Your task to perform on an android device: find which apps use the phone's location Image 0: 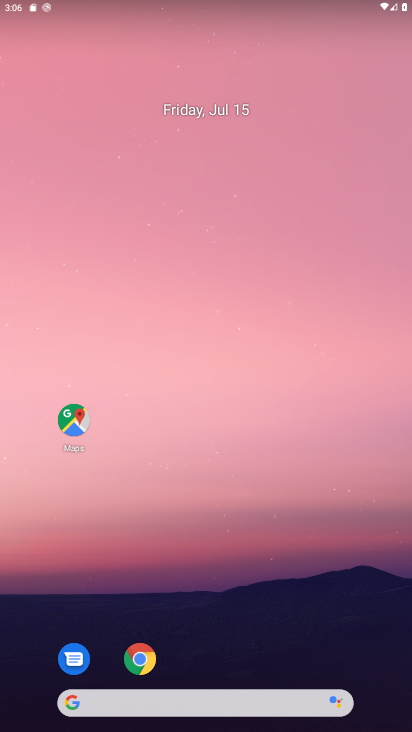
Step 0: drag from (345, 589) to (58, 141)
Your task to perform on an android device: find which apps use the phone's location Image 1: 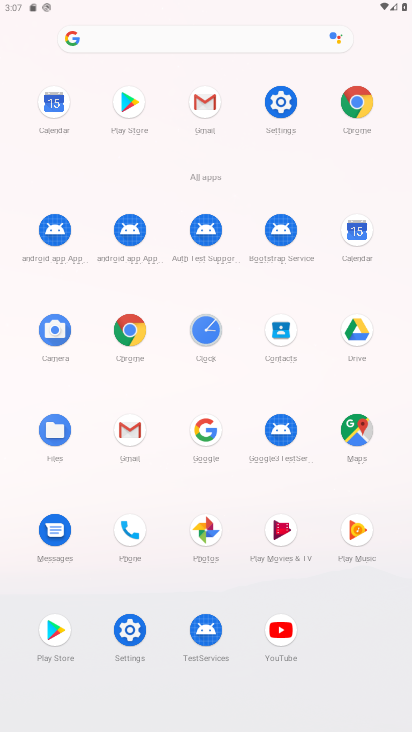
Step 1: click (132, 625)
Your task to perform on an android device: find which apps use the phone's location Image 2: 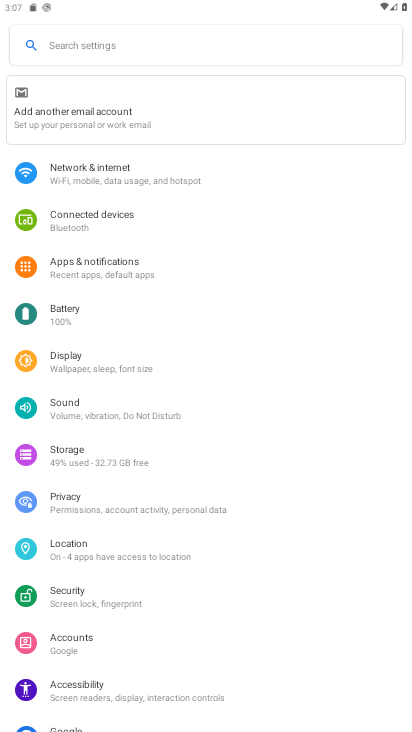
Step 2: click (62, 550)
Your task to perform on an android device: find which apps use the phone's location Image 3: 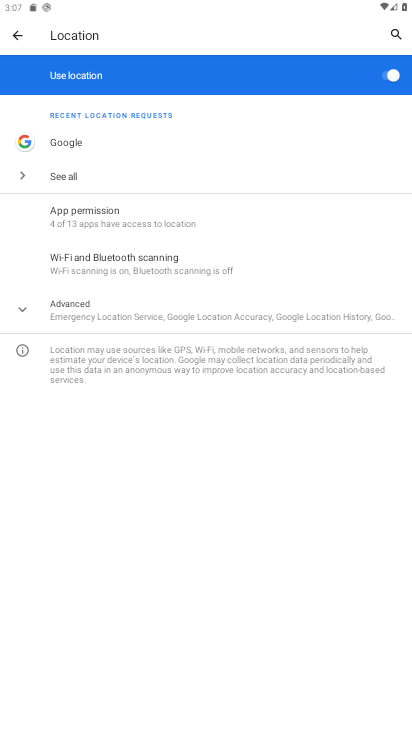
Step 3: click (163, 219)
Your task to perform on an android device: find which apps use the phone's location Image 4: 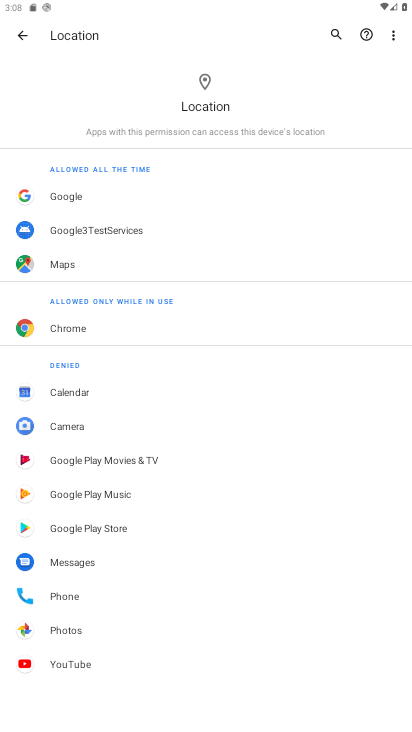
Step 4: task complete